Your task to perform on an android device: Clear the cart on costco. Search for alienware aurora on costco, select the first entry, add it to the cart, then select checkout. Image 0: 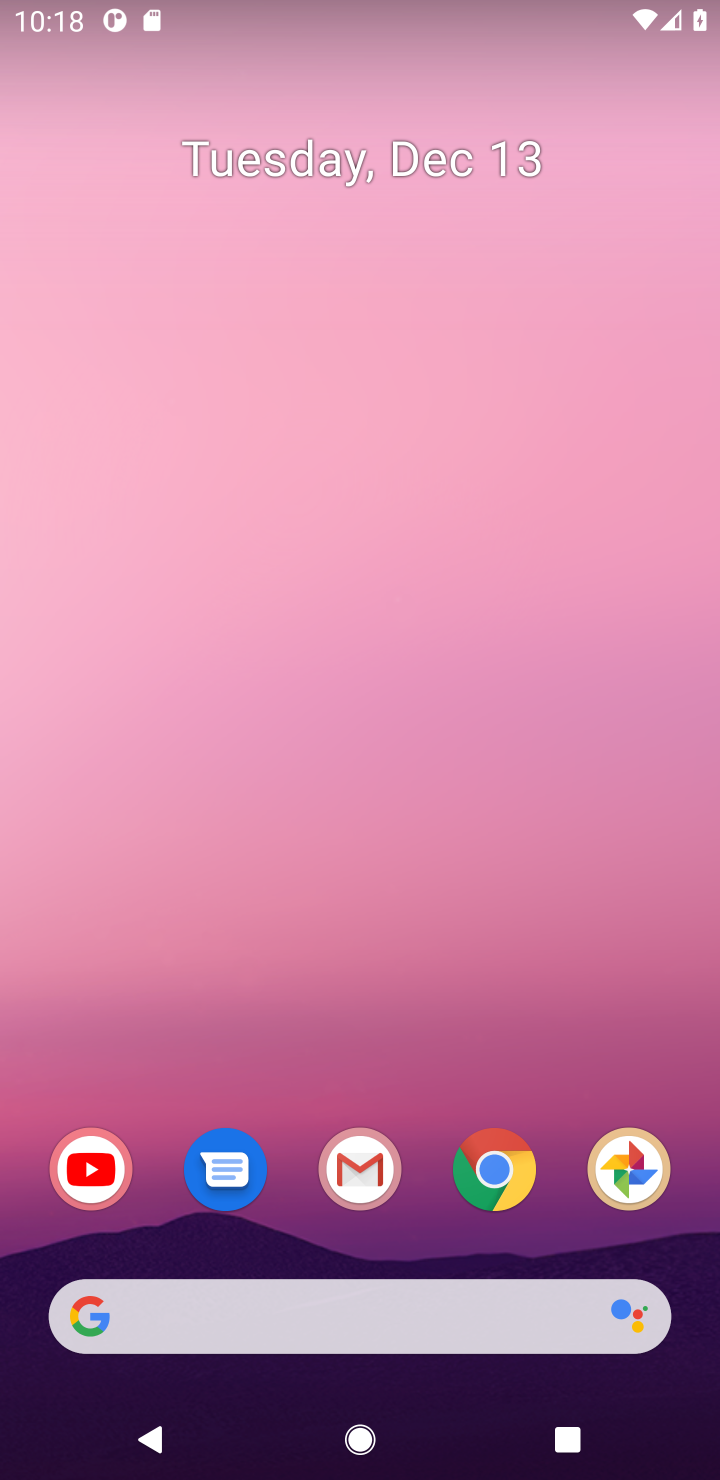
Step 0: click (276, 1321)
Your task to perform on an android device: Clear the cart on costco. Search for alienware aurora on costco, select the first entry, add it to the cart, then select checkout. Image 1: 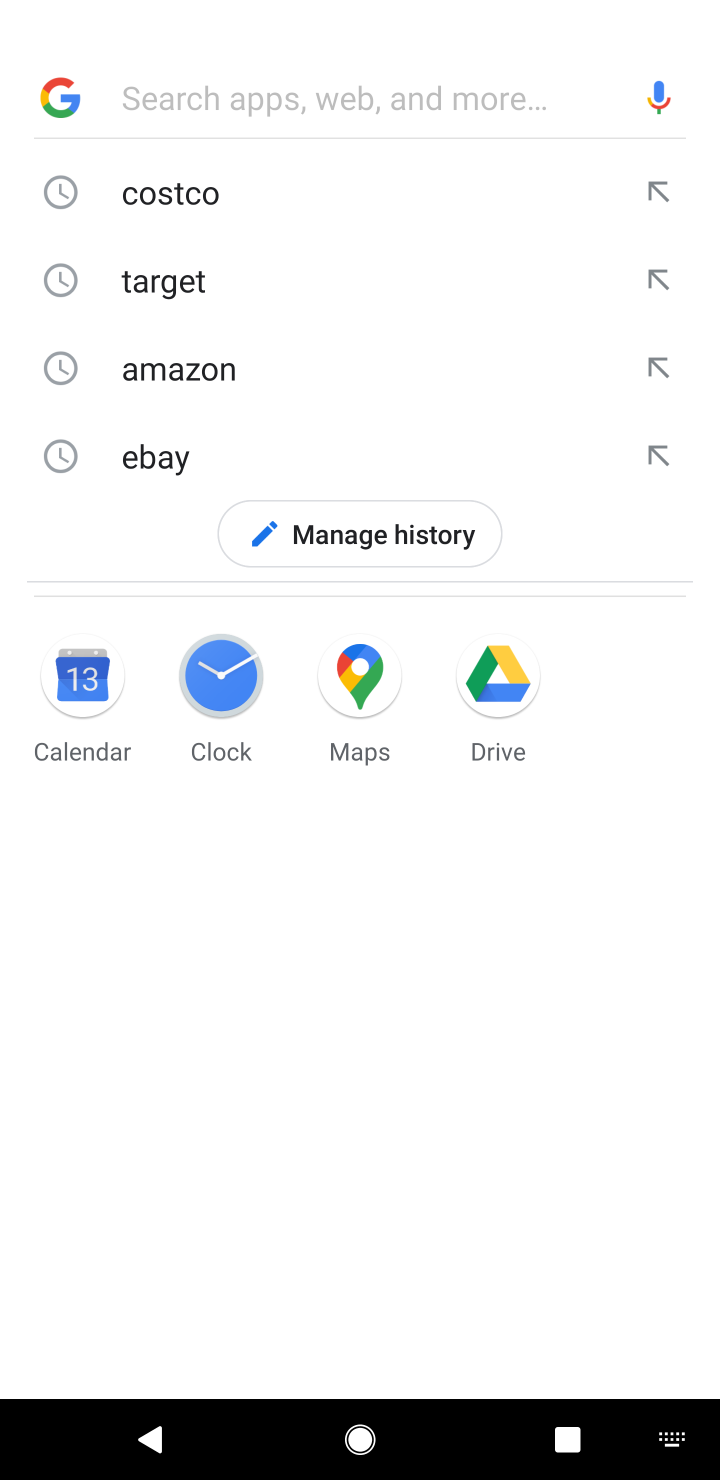
Step 1: click (233, 188)
Your task to perform on an android device: Clear the cart on costco. Search for alienware aurora on costco, select the first entry, add it to the cart, then select checkout. Image 2: 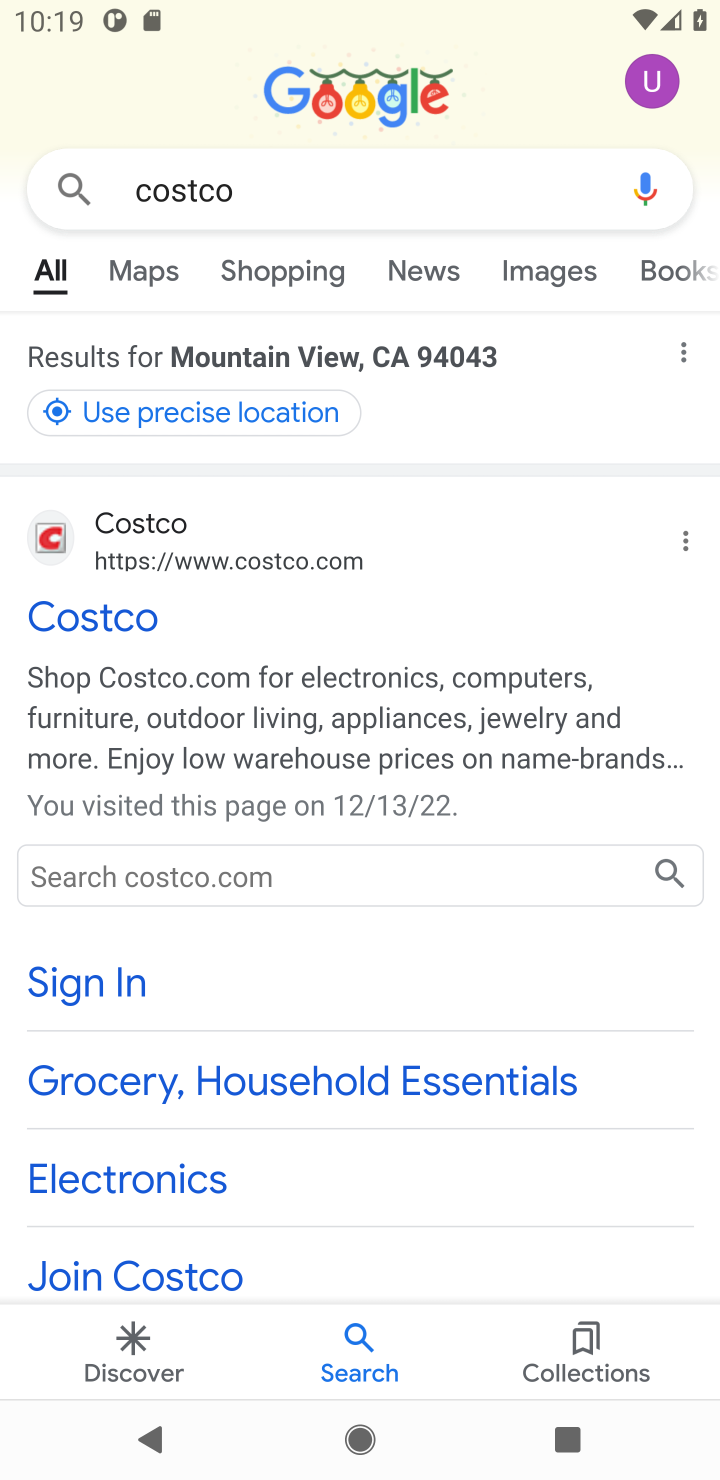
Step 2: click (109, 640)
Your task to perform on an android device: Clear the cart on costco. Search for alienware aurora on costco, select the first entry, add it to the cart, then select checkout. Image 3: 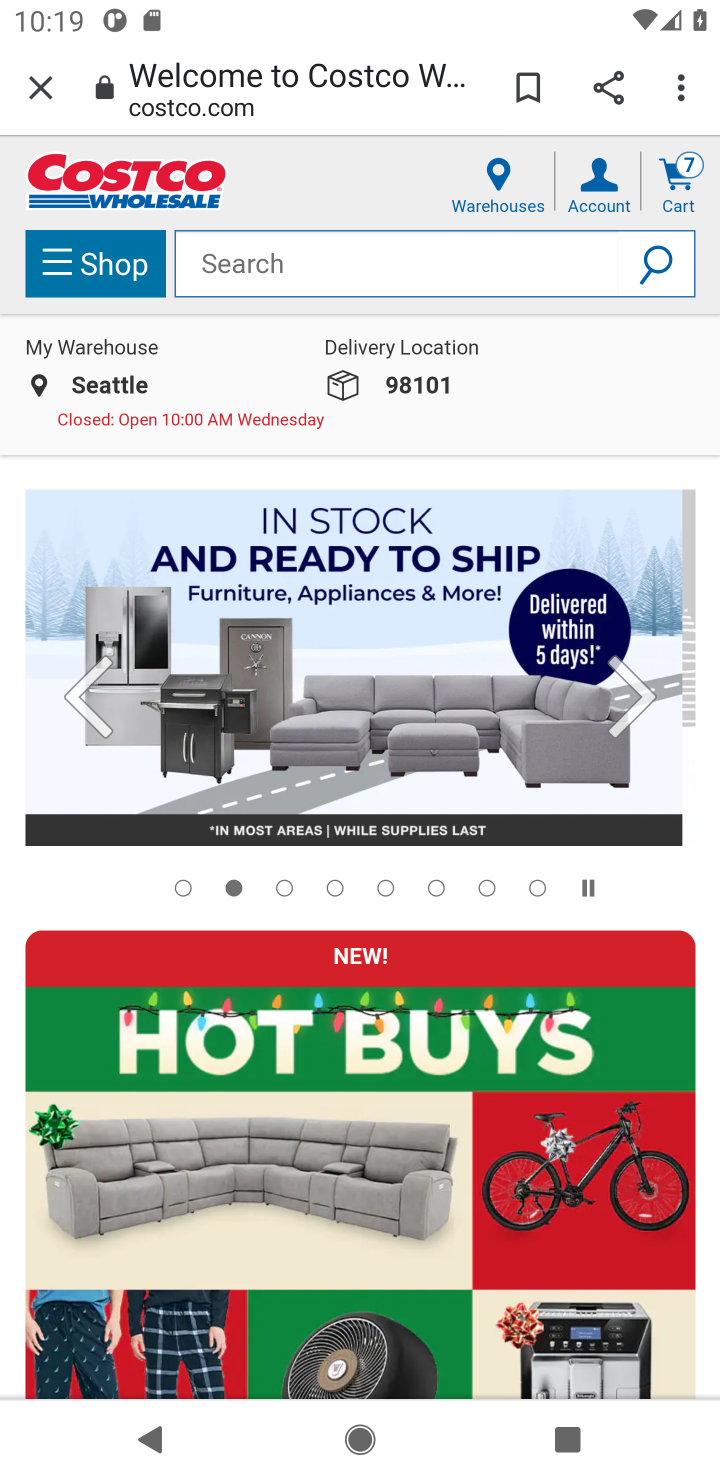
Step 3: click (326, 280)
Your task to perform on an android device: Clear the cart on costco. Search for alienware aurora on costco, select the first entry, add it to the cart, then select checkout. Image 4: 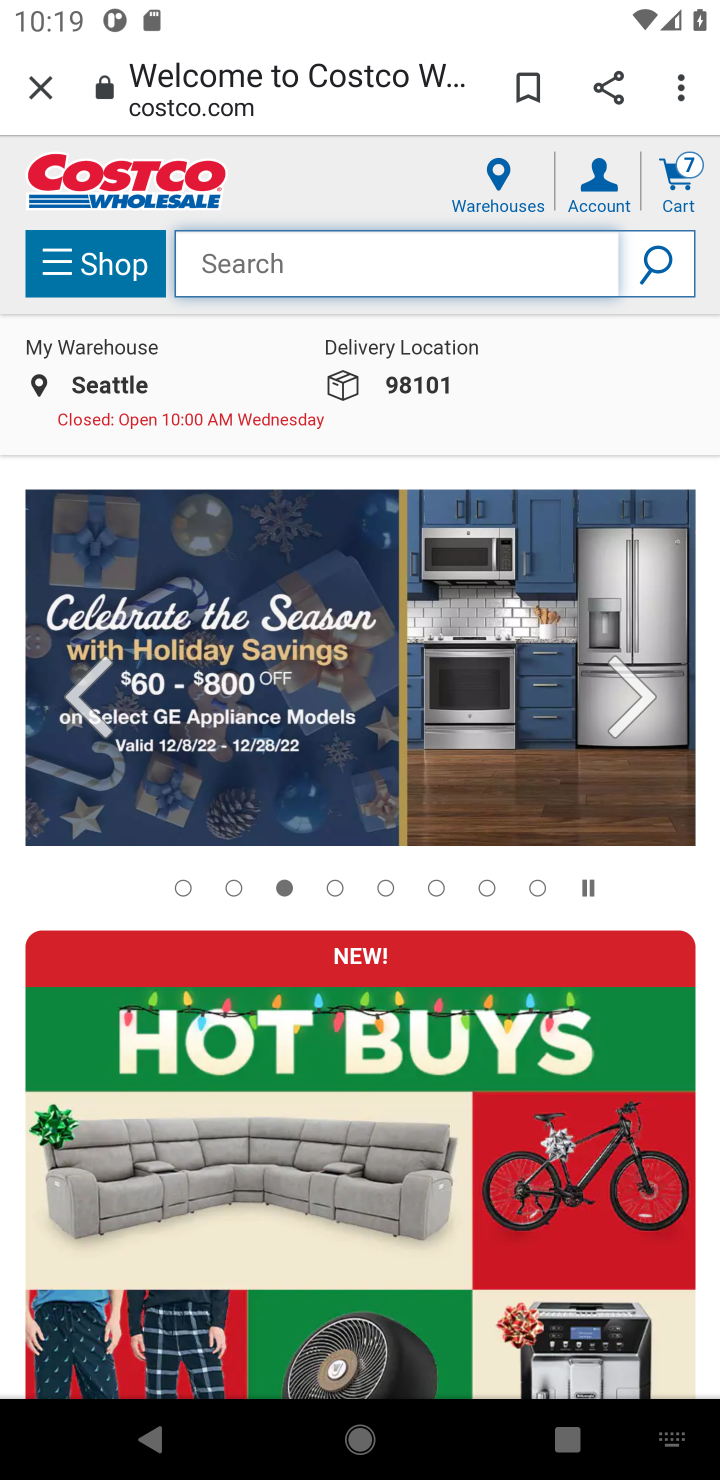
Step 4: type "alienware aurora"
Your task to perform on an android device: Clear the cart on costco. Search for alienware aurora on costco, select the first entry, add it to the cart, then select checkout. Image 5: 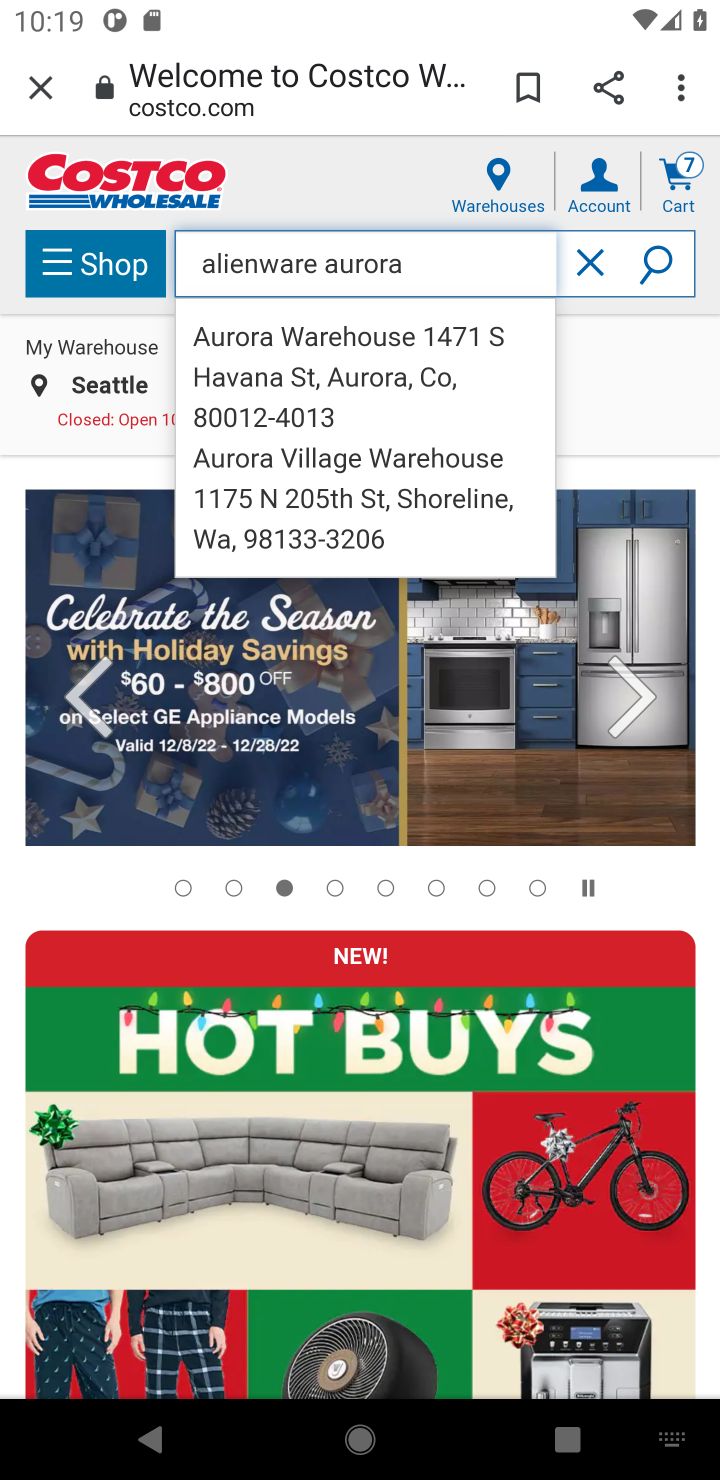
Step 5: click (672, 263)
Your task to perform on an android device: Clear the cart on costco. Search for alienware aurora on costco, select the first entry, add it to the cart, then select checkout. Image 6: 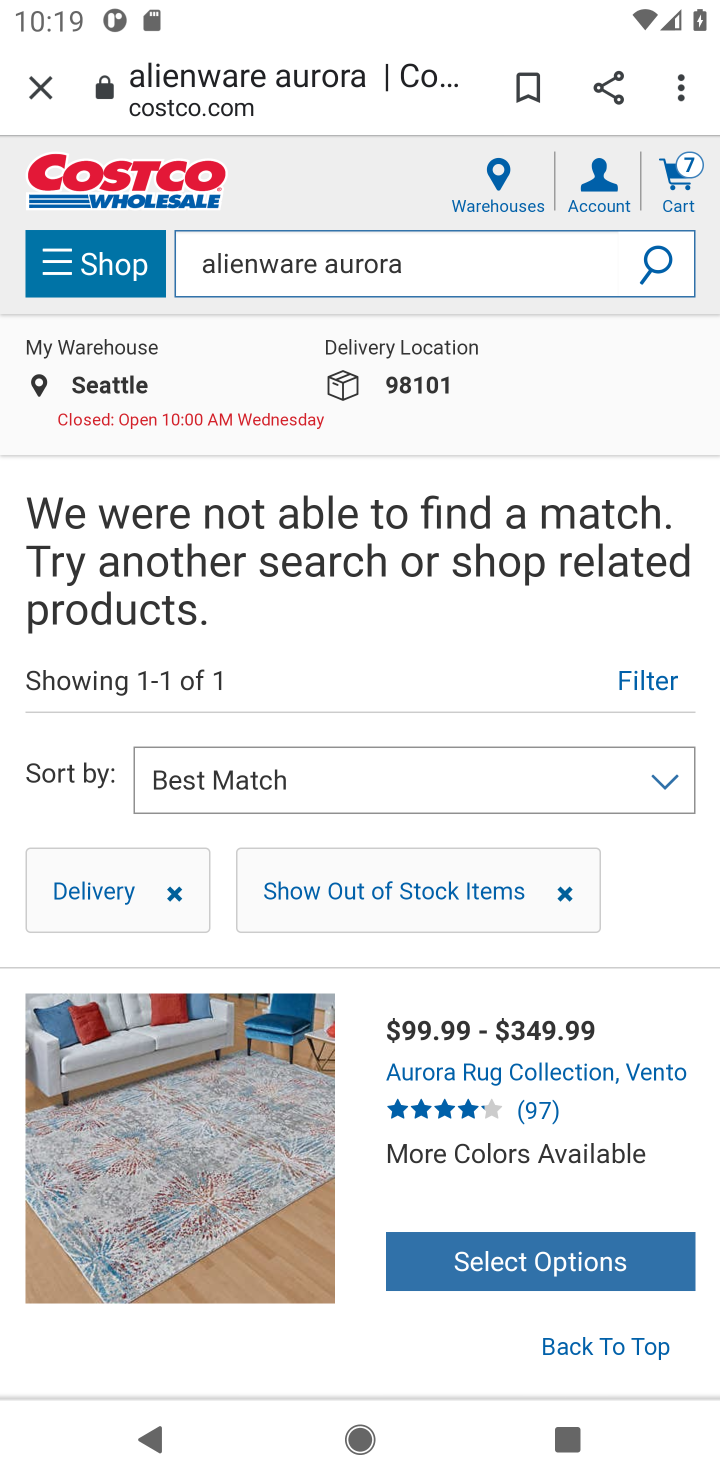
Step 6: click (467, 1276)
Your task to perform on an android device: Clear the cart on costco. Search for alienware aurora on costco, select the first entry, add it to the cart, then select checkout. Image 7: 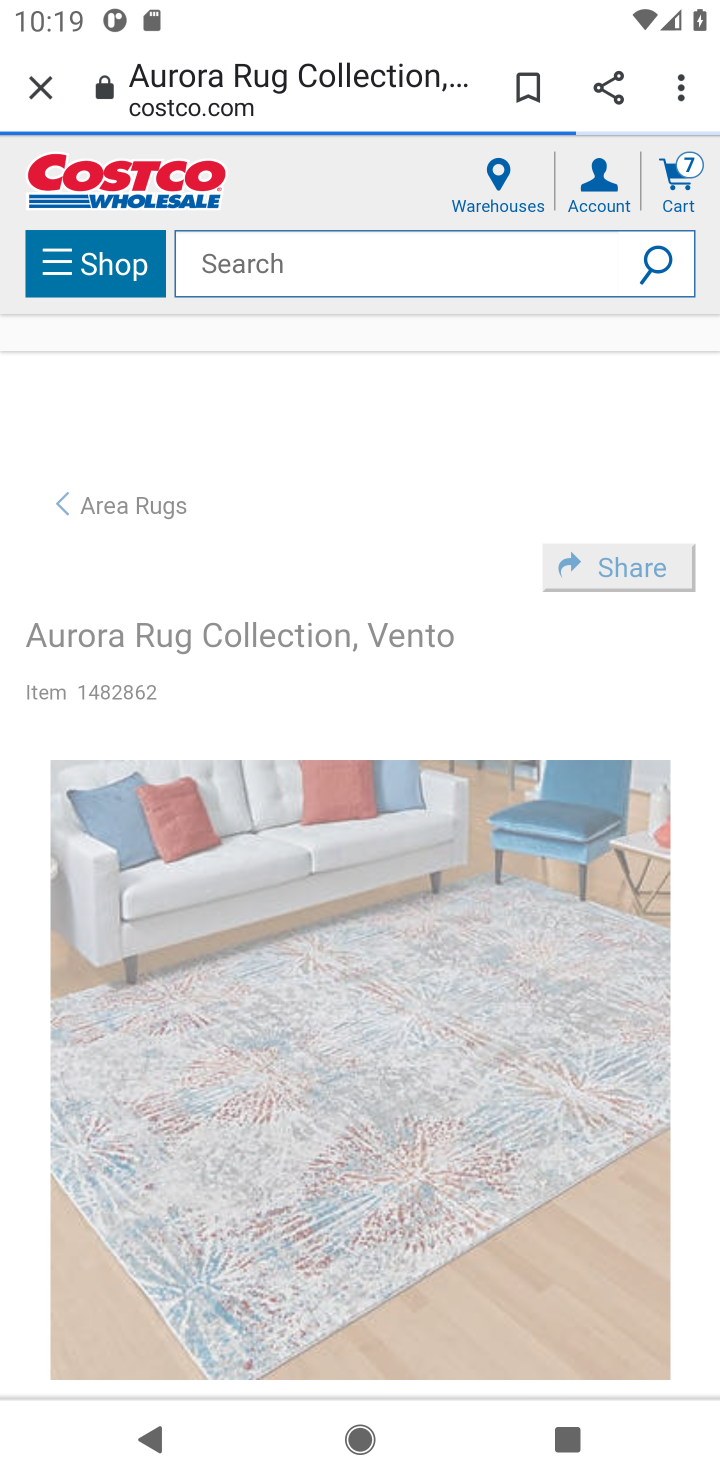
Step 7: task complete